Your task to perform on an android device: check android version Image 0: 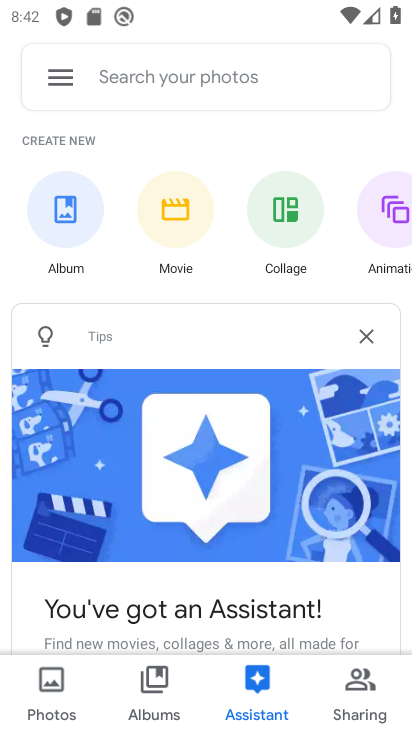
Step 0: press home button
Your task to perform on an android device: check android version Image 1: 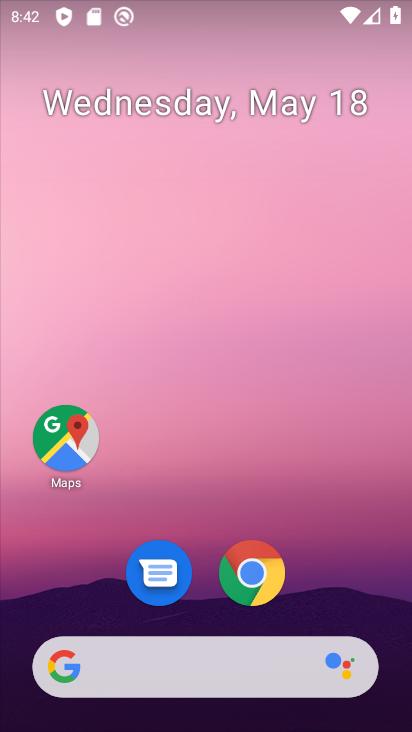
Step 1: drag from (236, 709) to (246, 24)
Your task to perform on an android device: check android version Image 2: 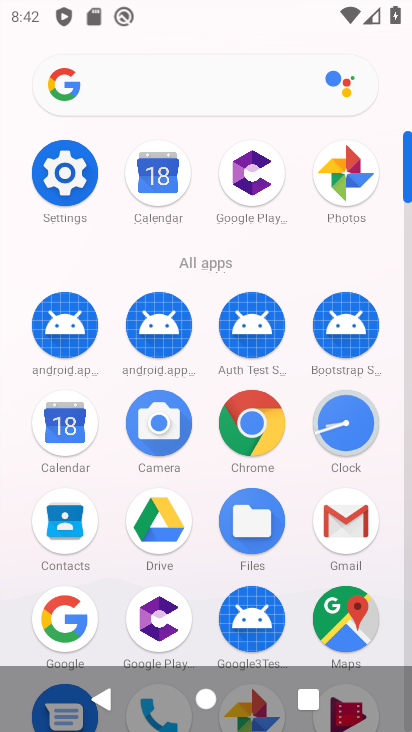
Step 2: click (58, 158)
Your task to perform on an android device: check android version Image 3: 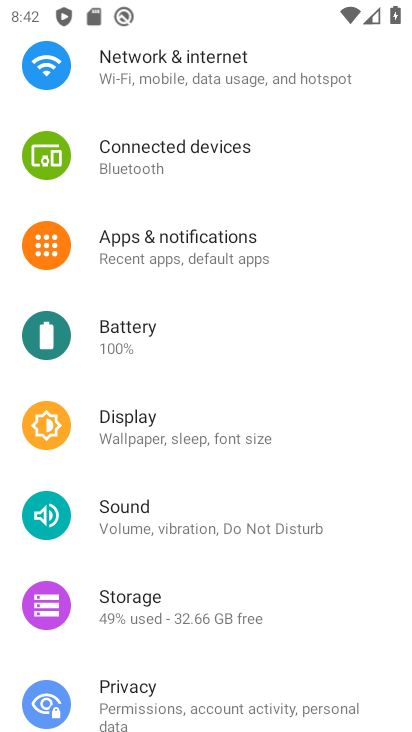
Step 3: drag from (308, 573) to (375, 172)
Your task to perform on an android device: check android version Image 4: 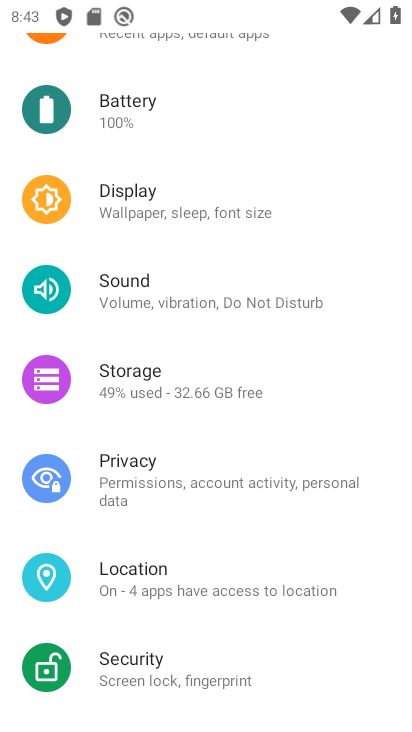
Step 4: drag from (263, 635) to (321, 63)
Your task to perform on an android device: check android version Image 5: 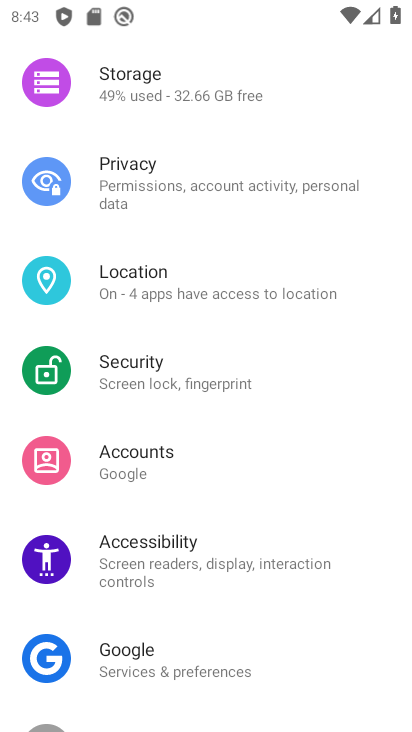
Step 5: drag from (275, 655) to (231, 106)
Your task to perform on an android device: check android version Image 6: 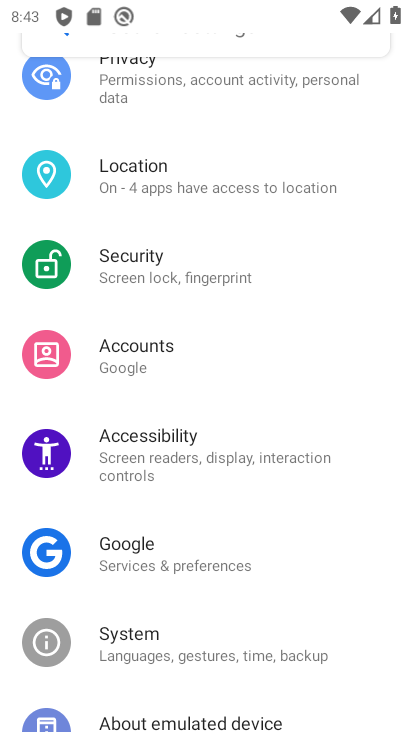
Step 6: drag from (242, 654) to (227, 184)
Your task to perform on an android device: check android version Image 7: 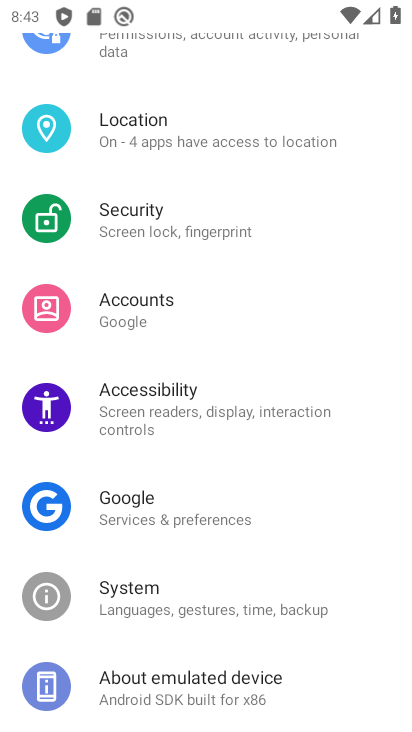
Step 7: click (217, 679)
Your task to perform on an android device: check android version Image 8: 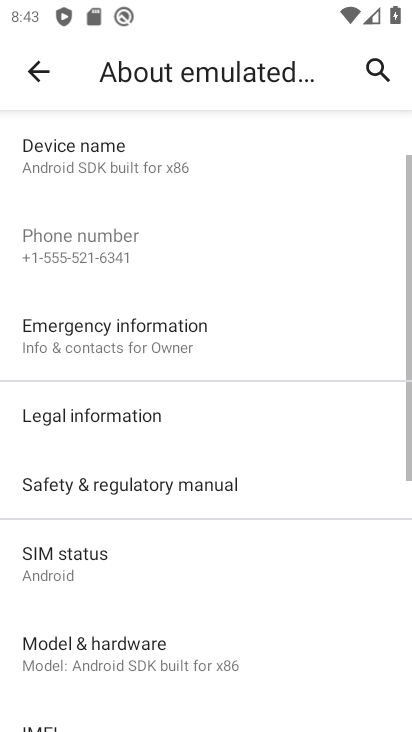
Step 8: task complete